Your task to perform on an android device: remove spam from my inbox in the gmail app Image 0: 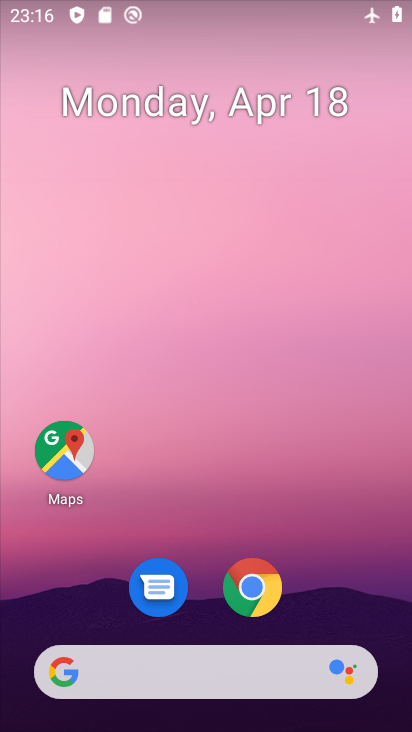
Step 0: drag from (357, 612) to (366, 77)
Your task to perform on an android device: remove spam from my inbox in the gmail app Image 1: 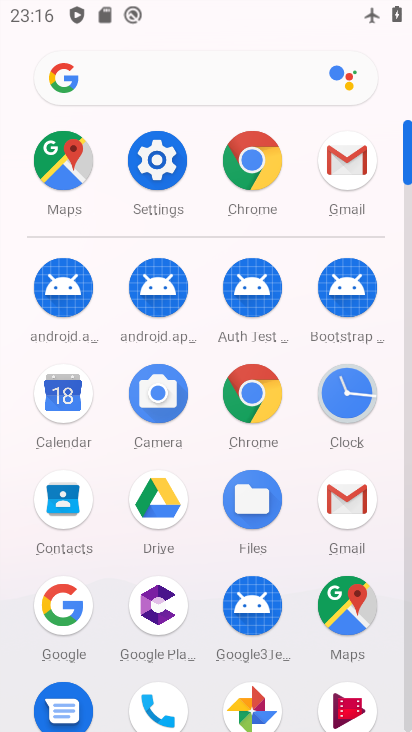
Step 1: click (343, 509)
Your task to perform on an android device: remove spam from my inbox in the gmail app Image 2: 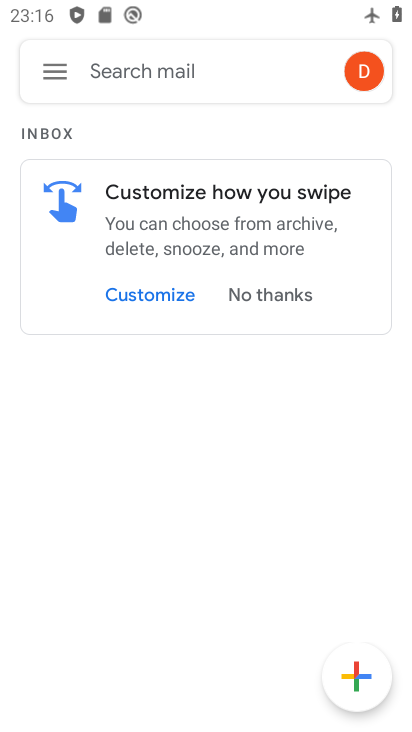
Step 2: click (56, 69)
Your task to perform on an android device: remove spam from my inbox in the gmail app Image 3: 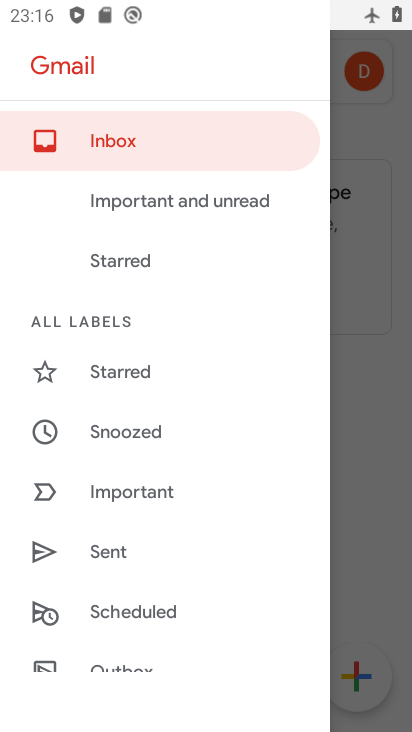
Step 3: drag from (151, 647) to (200, 285)
Your task to perform on an android device: remove spam from my inbox in the gmail app Image 4: 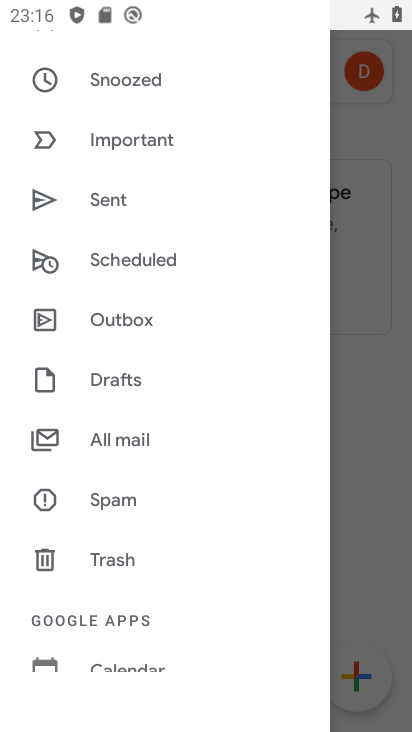
Step 4: click (120, 501)
Your task to perform on an android device: remove spam from my inbox in the gmail app Image 5: 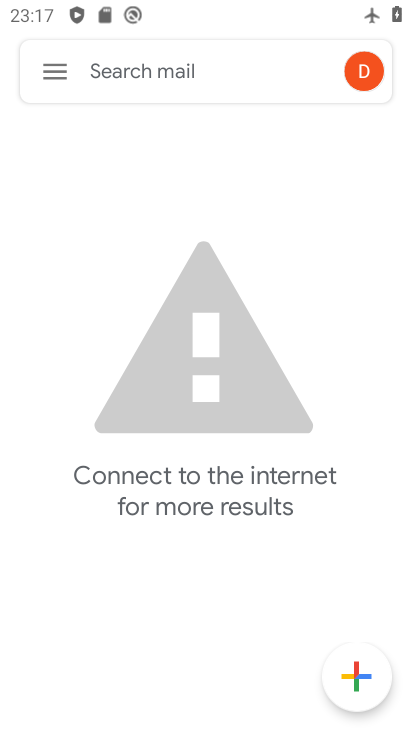
Step 5: task complete